Your task to perform on an android device: Open the phone app and click the voicemail tab. Image 0: 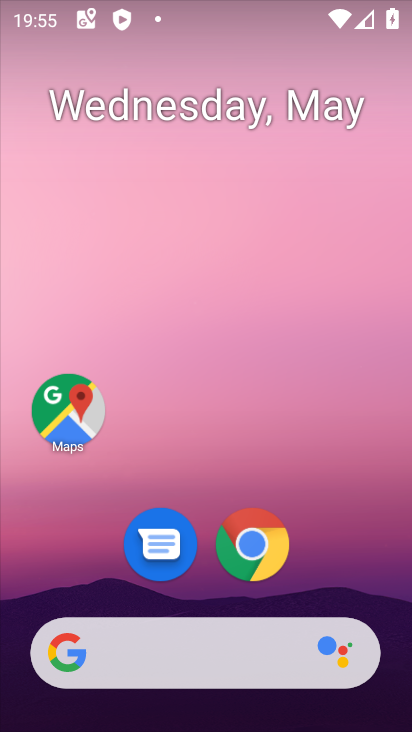
Step 0: drag from (196, 588) to (207, 189)
Your task to perform on an android device: Open the phone app and click the voicemail tab. Image 1: 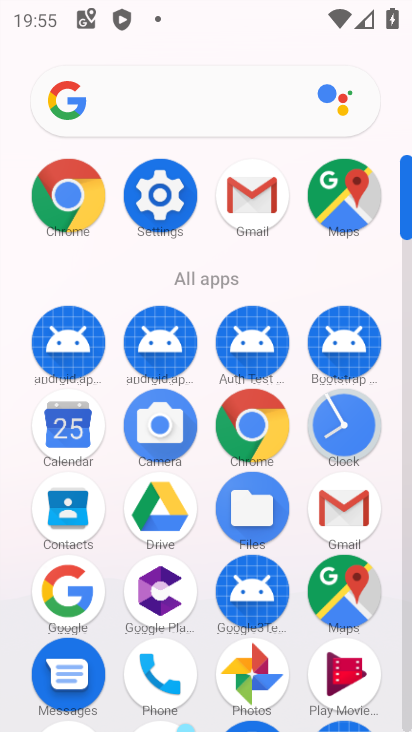
Step 1: click (161, 646)
Your task to perform on an android device: Open the phone app and click the voicemail tab. Image 2: 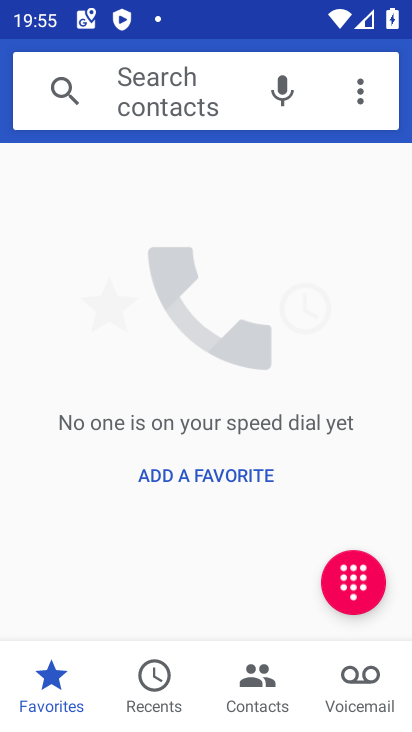
Step 2: click (383, 702)
Your task to perform on an android device: Open the phone app and click the voicemail tab. Image 3: 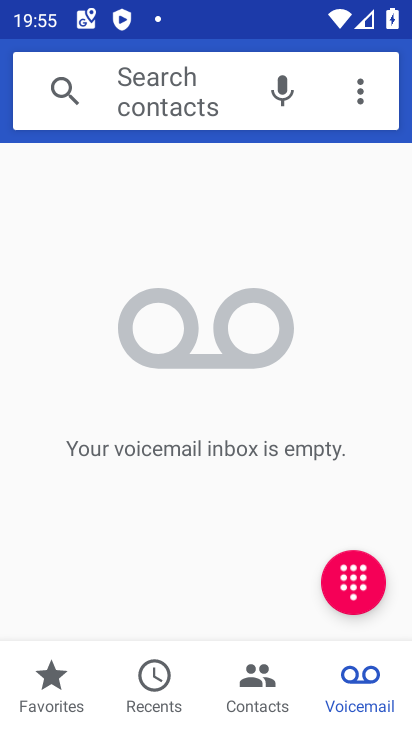
Step 3: task complete